Your task to perform on an android device: turn off airplane mode Image 0: 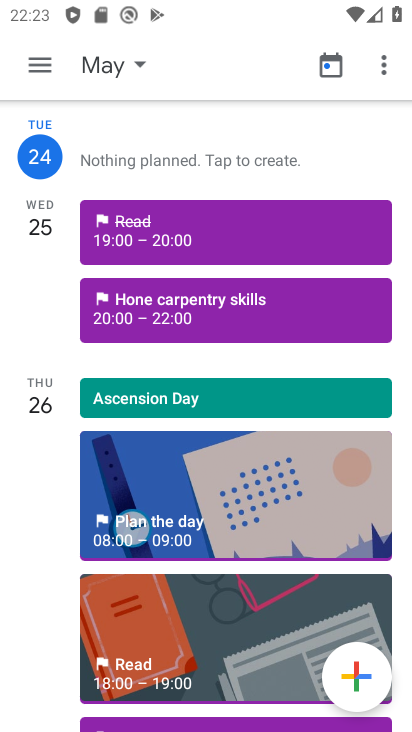
Step 0: press home button
Your task to perform on an android device: turn off airplane mode Image 1: 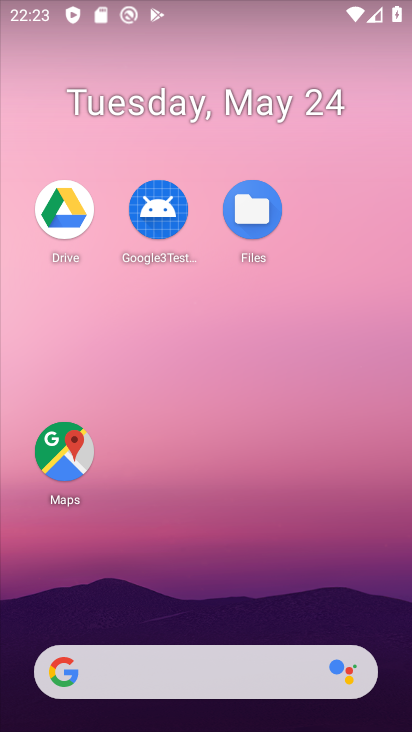
Step 1: drag from (221, 625) to (192, 52)
Your task to perform on an android device: turn off airplane mode Image 2: 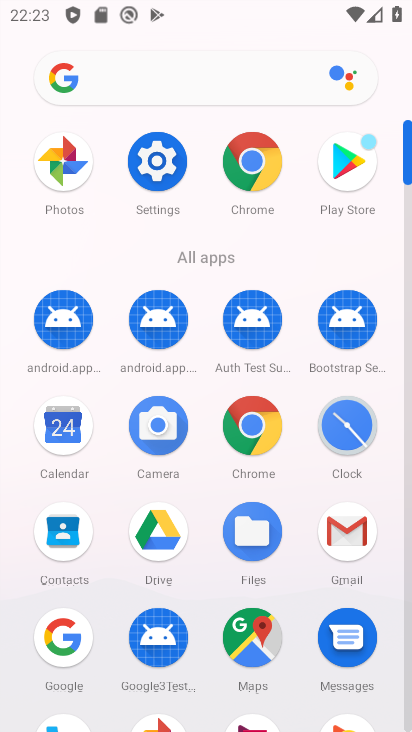
Step 2: click (156, 157)
Your task to perform on an android device: turn off airplane mode Image 3: 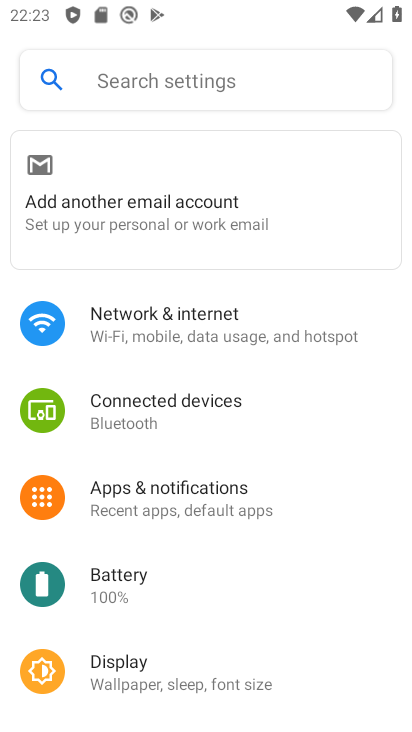
Step 3: click (180, 346)
Your task to perform on an android device: turn off airplane mode Image 4: 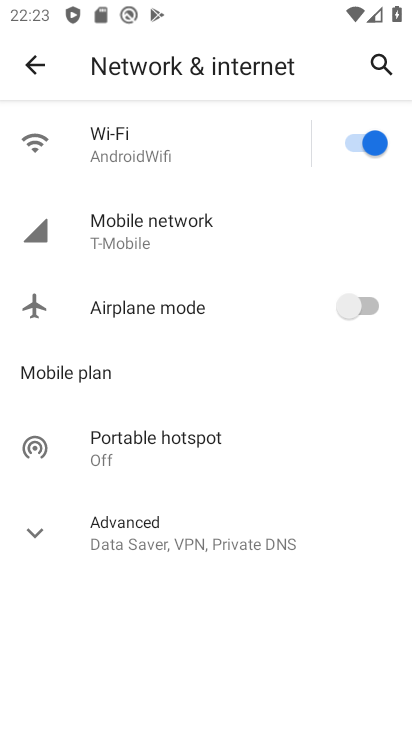
Step 4: task complete